Your task to perform on an android device: Clear the cart on bestbuy. Add dell alienware to the cart on bestbuy, then select checkout. Image 0: 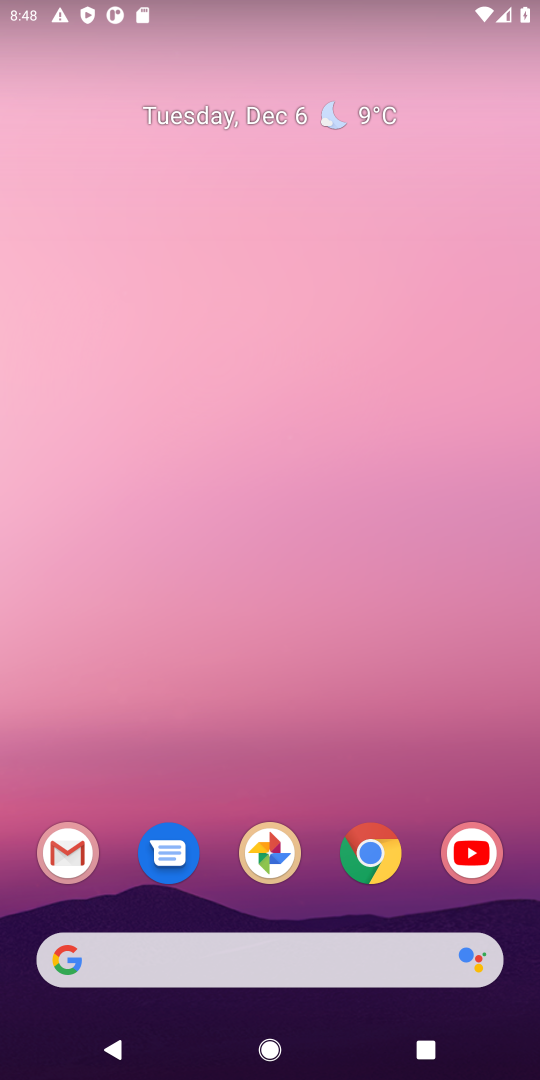
Step 0: click (375, 851)
Your task to perform on an android device: Clear the cart on bestbuy. Add dell alienware to the cart on bestbuy, then select checkout. Image 1: 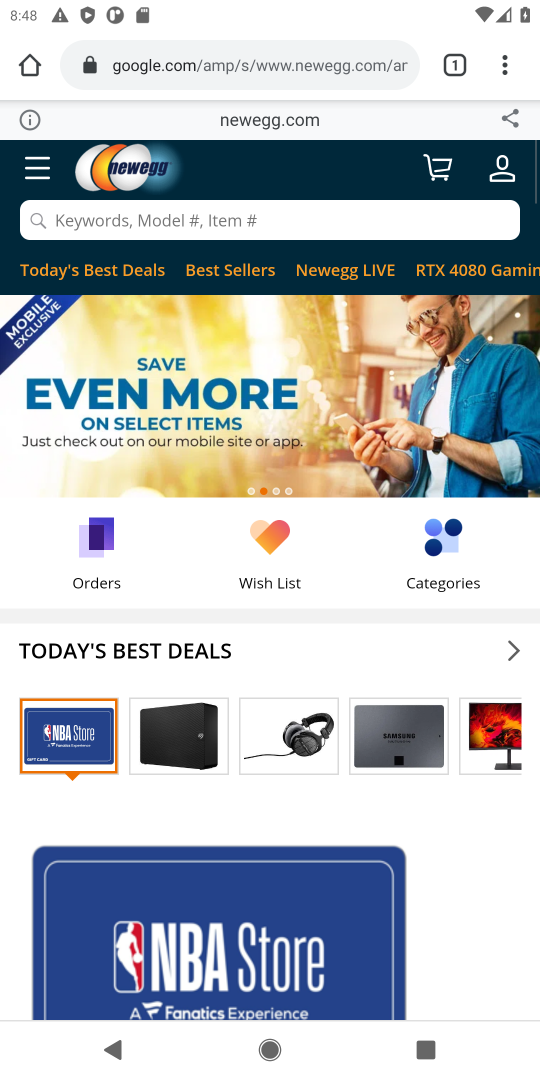
Step 1: click (232, 58)
Your task to perform on an android device: Clear the cart on bestbuy. Add dell alienware to the cart on bestbuy, then select checkout. Image 2: 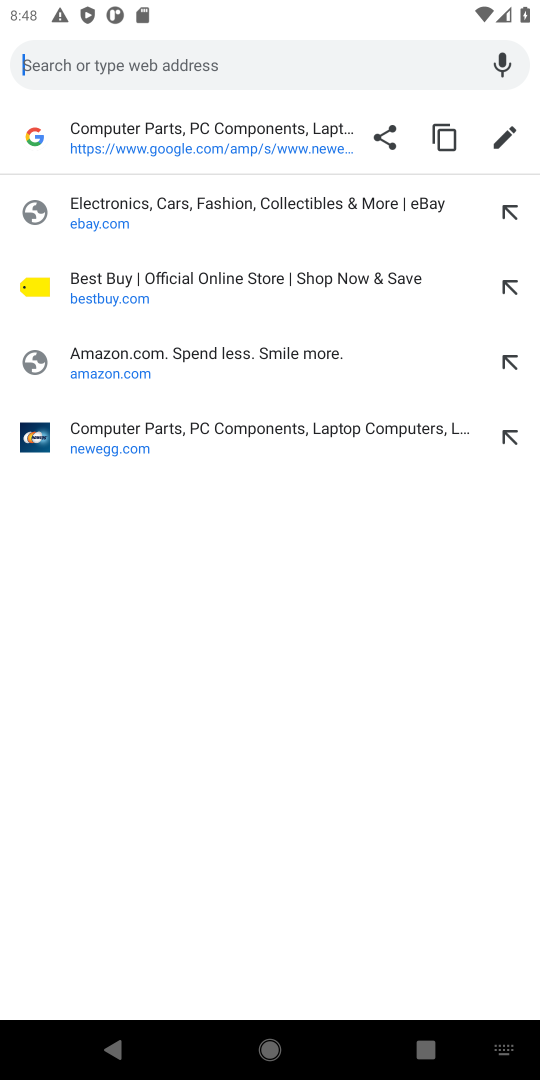
Step 2: click (268, 278)
Your task to perform on an android device: Clear the cart on bestbuy. Add dell alienware to the cart on bestbuy, then select checkout. Image 3: 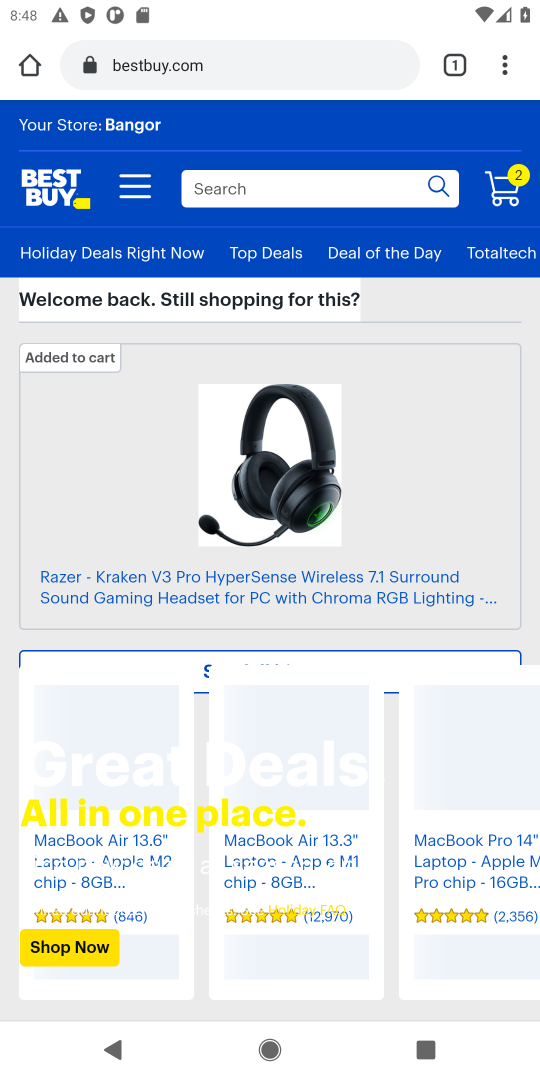
Step 3: click (339, 186)
Your task to perform on an android device: Clear the cart on bestbuy. Add dell alienware to the cart on bestbuy, then select checkout. Image 4: 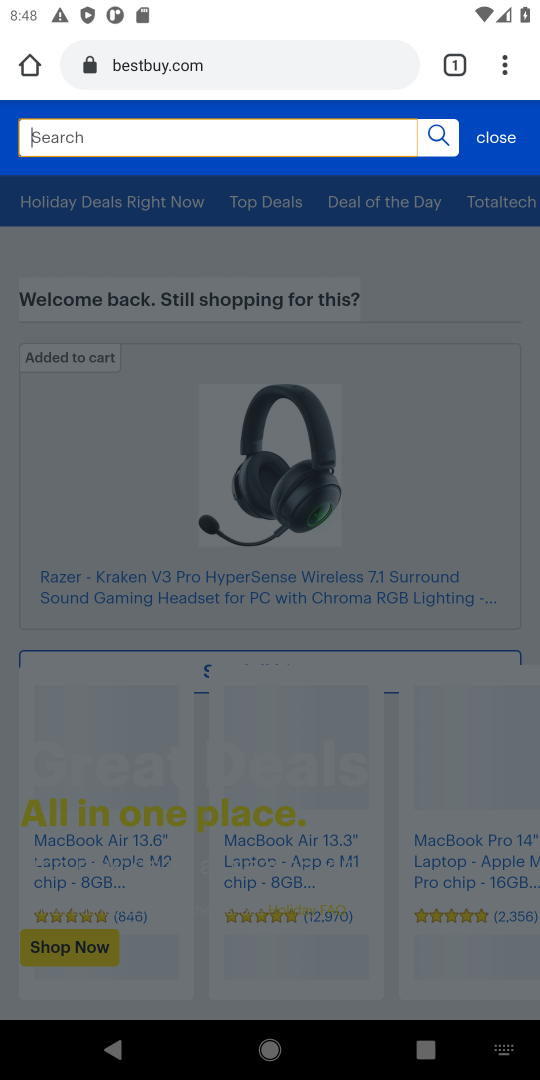
Step 4: type "dell alienware"
Your task to perform on an android device: Clear the cart on bestbuy. Add dell alienware to the cart on bestbuy, then select checkout. Image 5: 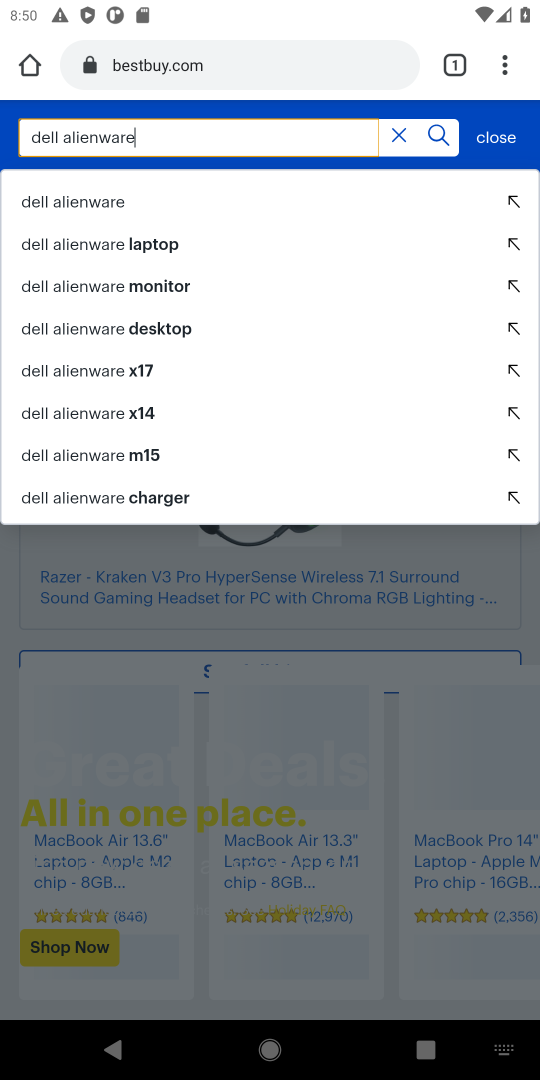
Step 5: click (69, 204)
Your task to perform on an android device: Clear the cart on bestbuy. Add dell alienware to the cart on bestbuy, then select checkout. Image 6: 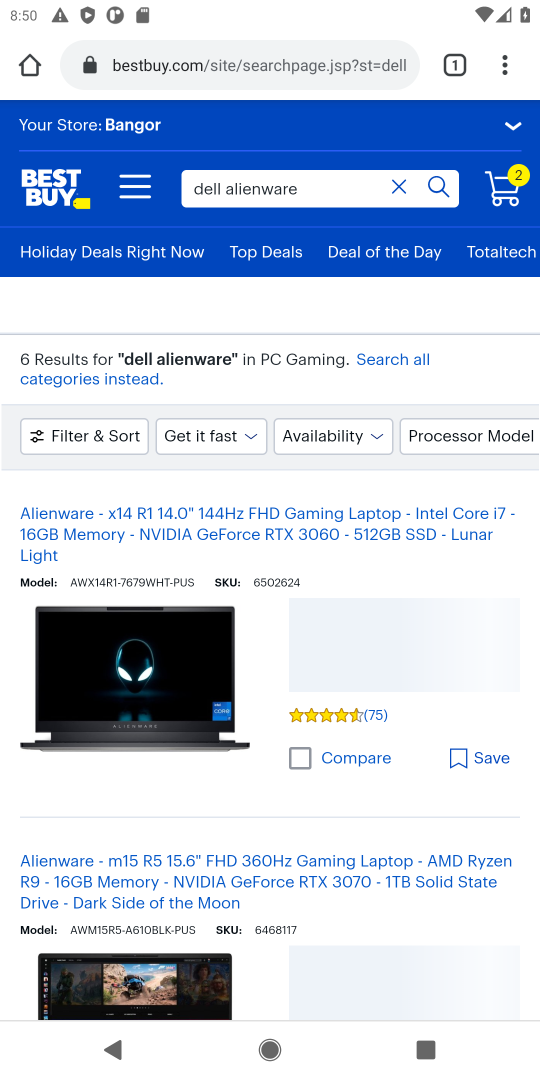
Step 6: click (105, 695)
Your task to perform on an android device: Clear the cart on bestbuy. Add dell alienware to the cart on bestbuy, then select checkout. Image 7: 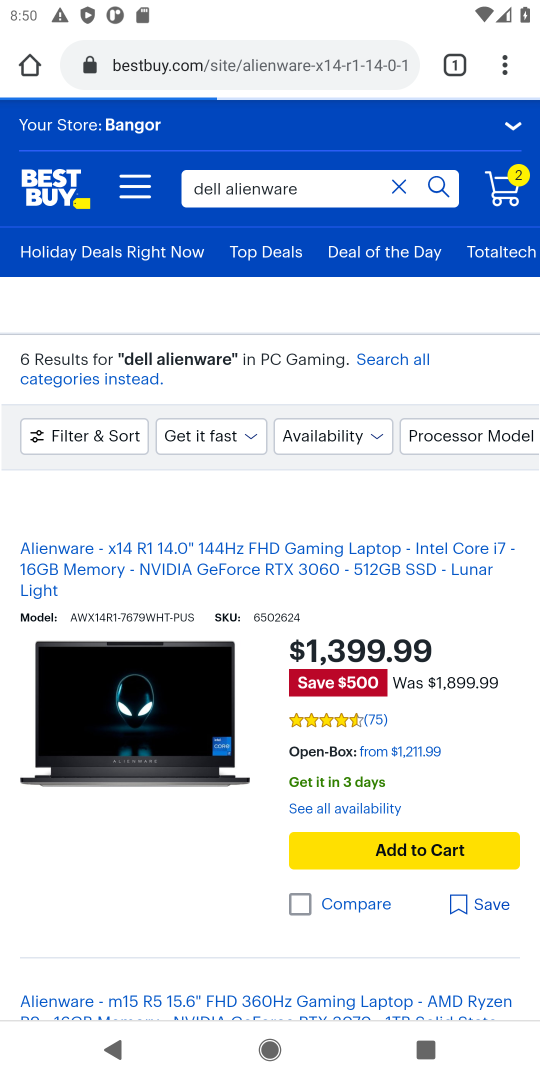
Step 7: click (387, 725)
Your task to perform on an android device: Clear the cart on bestbuy. Add dell alienware to the cart on bestbuy, then select checkout. Image 8: 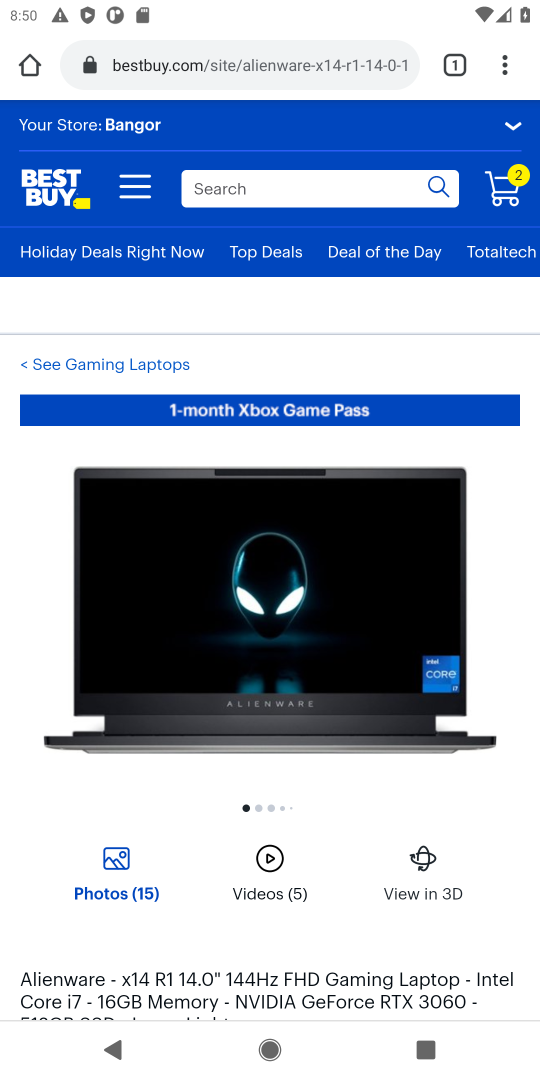
Step 8: drag from (303, 956) to (313, 313)
Your task to perform on an android device: Clear the cart on bestbuy. Add dell alienware to the cart on bestbuy, then select checkout. Image 9: 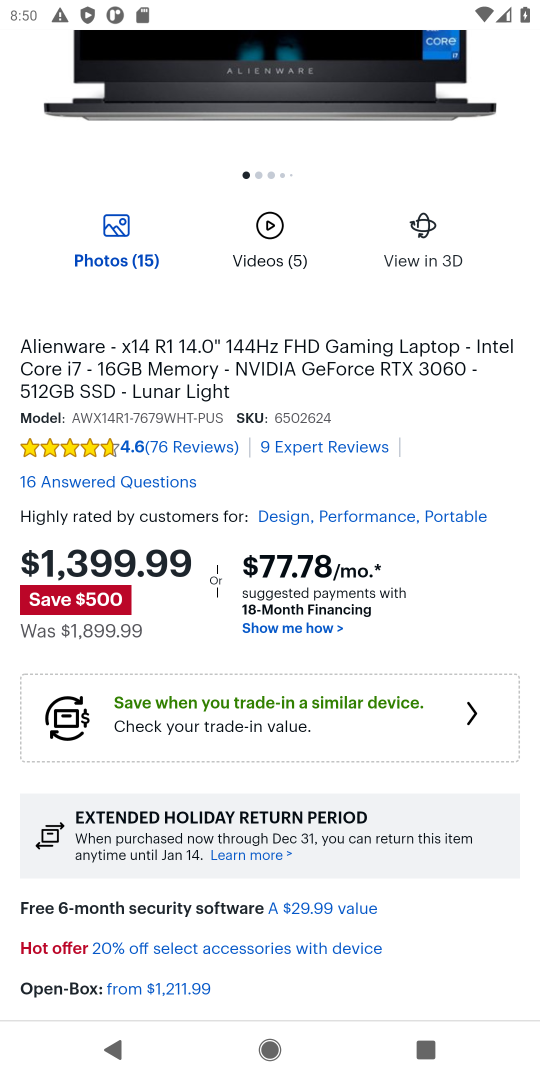
Step 9: drag from (348, 862) to (323, 260)
Your task to perform on an android device: Clear the cart on bestbuy. Add dell alienware to the cart on bestbuy, then select checkout. Image 10: 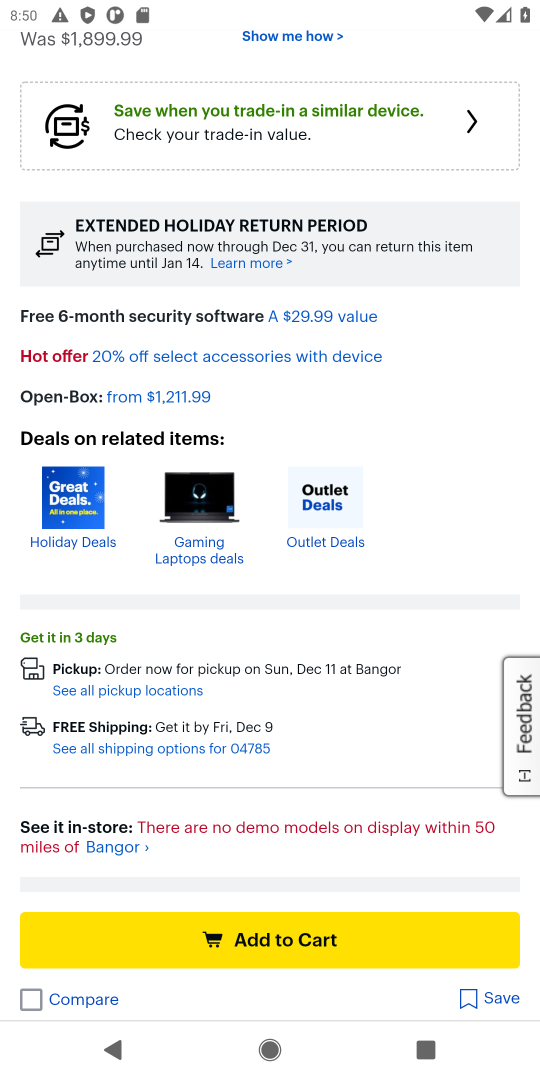
Step 10: click (250, 941)
Your task to perform on an android device: Clear the cart on bestbuy. Add dell alienware to the cart on bestbuy, then select checkout. Image 11: 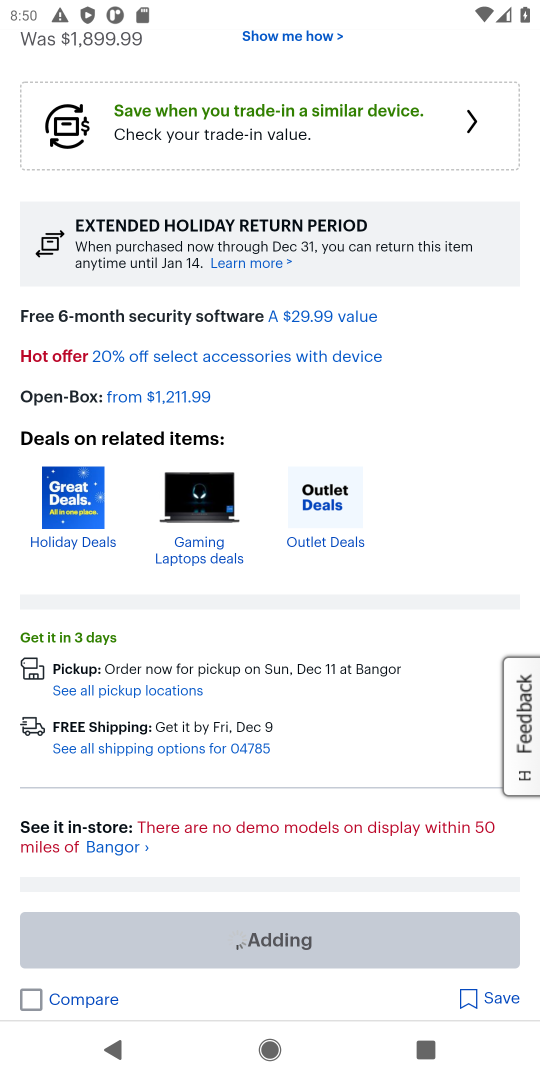
Step 11: task complete